Your task to perform on an android device: turn off javascript in the chrome app Image 0: 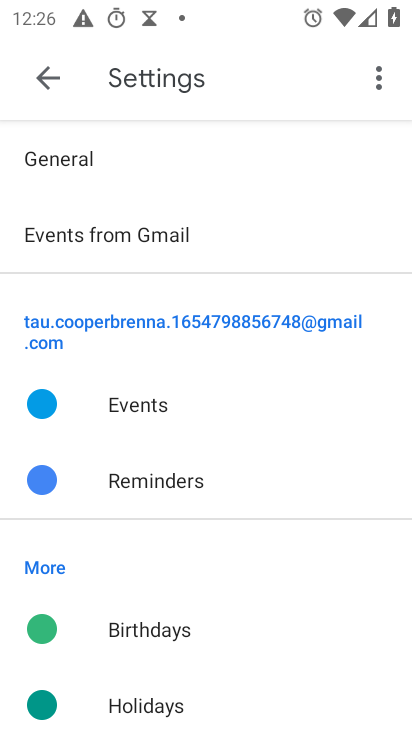
Step 0: press home button
Your task to perform on an android device: turn off javascript in the chrome app Image 1: 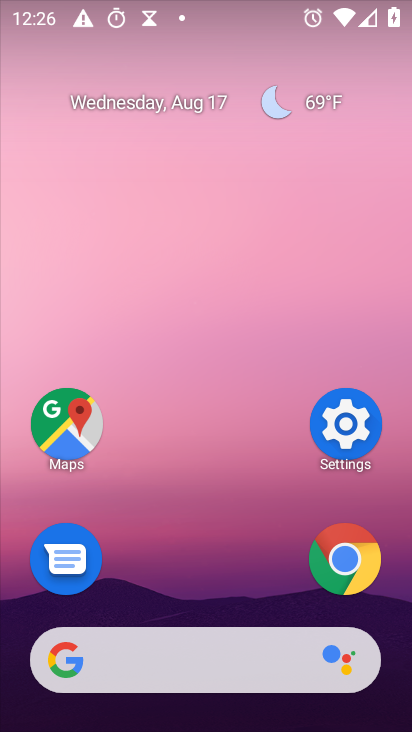
Step 1: click (339, 553)
Your task to perform on an android device: turn off javascript in the chrome app Image 2: 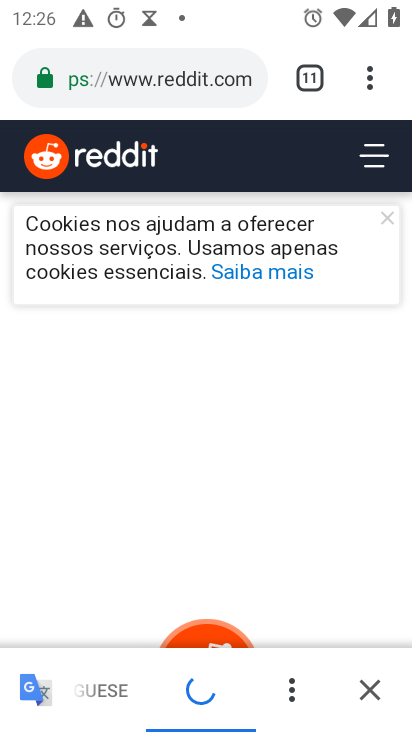
Step 2: drag from (370, 71) to (231, 629)
Your task to perform on an android device: turn off javascript in the chrome app Image 3: 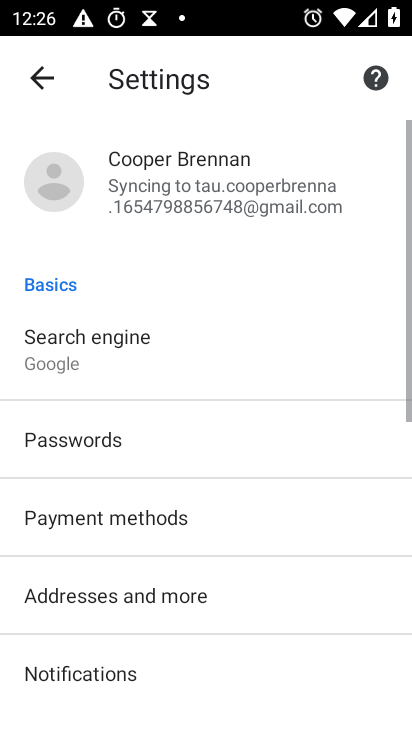
Step 3: drag from (223, 639) to (306, 135)
Your task to perform on an android device: turn off javascript in the chrome app Image 4: 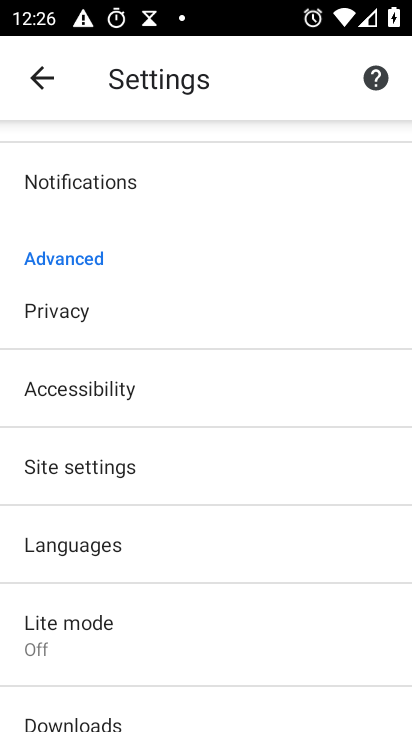
Step 4: drag from (182, 575) to (229, 195)
Your task to perform on an android device: turn off javascript in the chrome app Image 5: 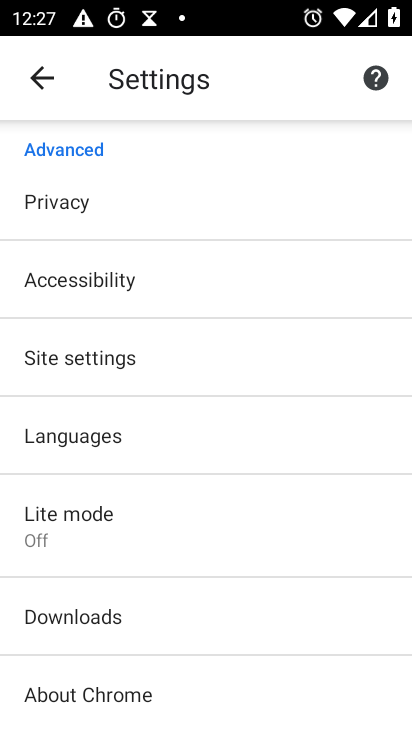
Step 5: click (147, 344)
Your task to perform on an android device: turn off javascript in the chrome app Image 6: 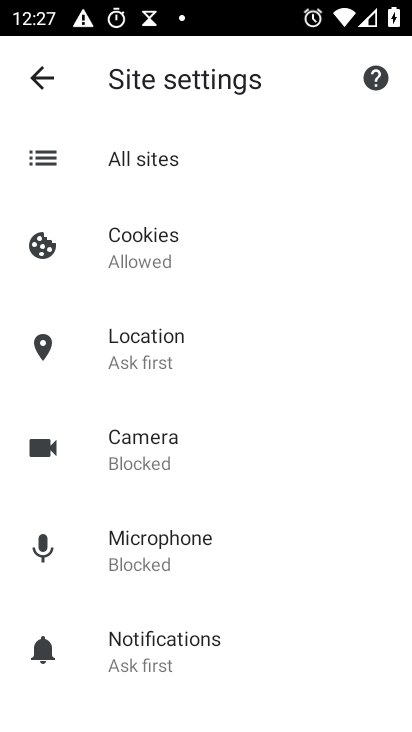
Step 6: drag from (266, 519) to (308, 240)
Your task to perform on an android device: turn off javascript in the chrome app Image 7: 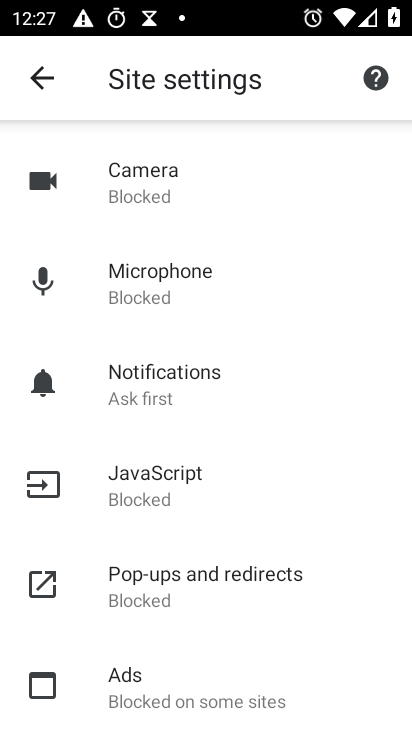
Step 7: click (170, 496)
Your task to perform on an android device: turn off javascript in the chrome app Image 8: 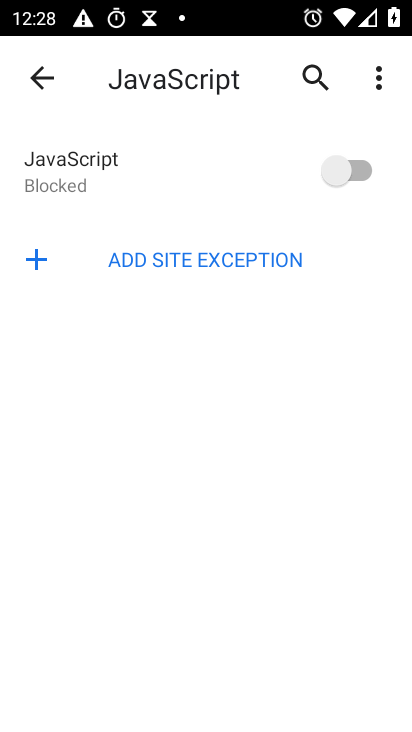
Step 8: task complete